Your task to perform on an android device: delete a single message in the gmail app Image 0: 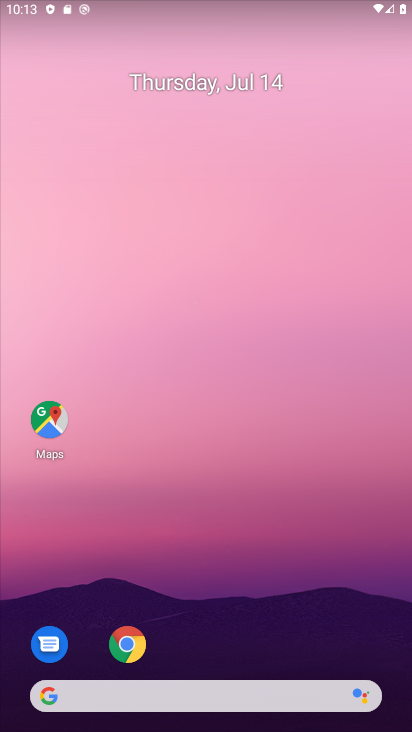
Step 0: drag from (282, 643) to (202, 65)
Your task to perform on an android device: delete a single message in the gmail app Image 1: 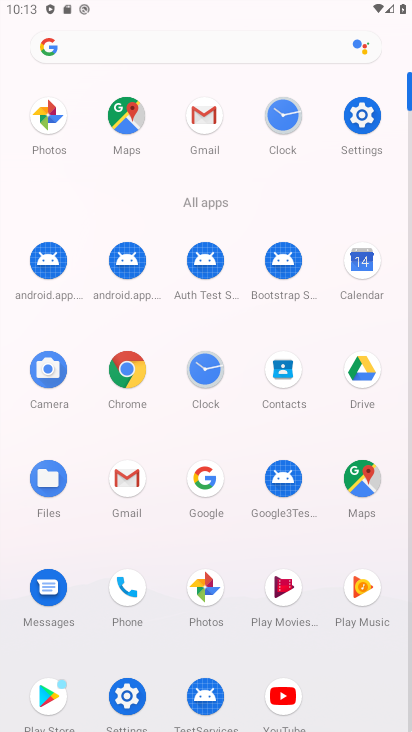
Step 1: click (201, 112)
Your task to perform on an android device: delete a single message in the gmail app Image 2: 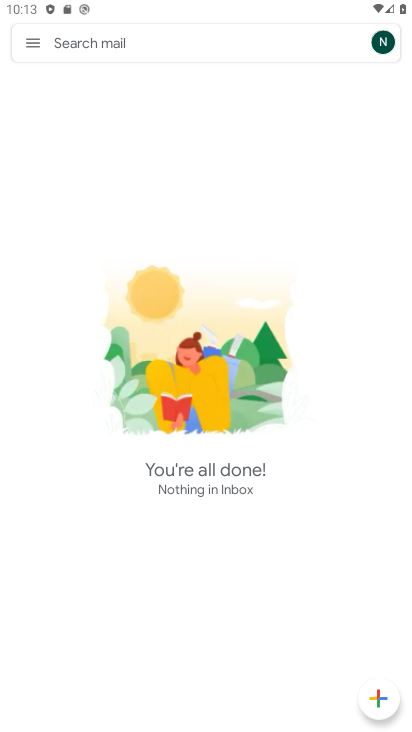
Step 2: task complete